Your task to perform on an android device: turn vacation reply on in the gmail app Image 0: 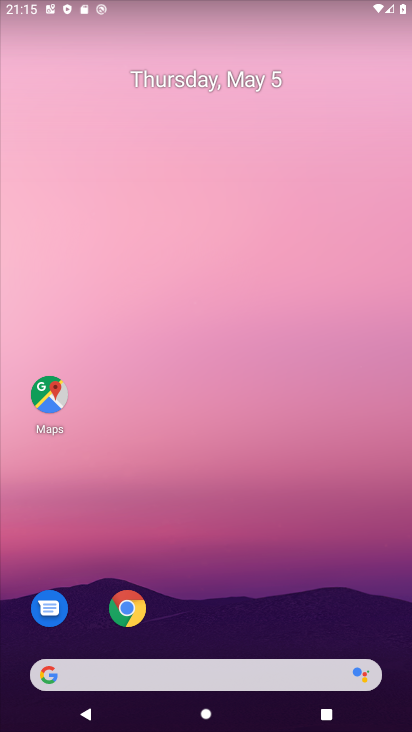
Step 0: drag from (283, 649) to (277, 22)
Your task to perform on an android device: turn vacation reply on in the gmail app Image 1: 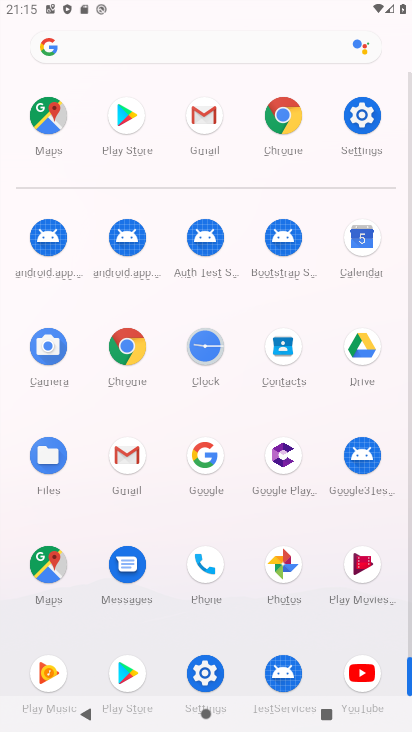
Step 1: click (125, 456)
Your task to perform on an android device: turn vacation reply on in the gmail app Image 2: 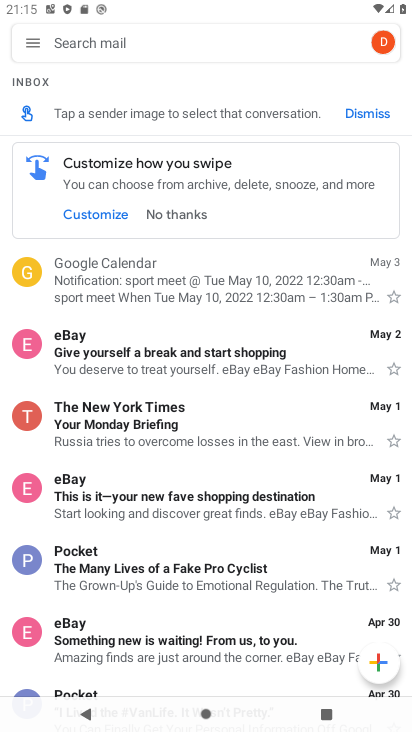
Step 2: click (29, 43)
Your task to perform on an android device: turn vacation reply on in the gmail app Image 3: 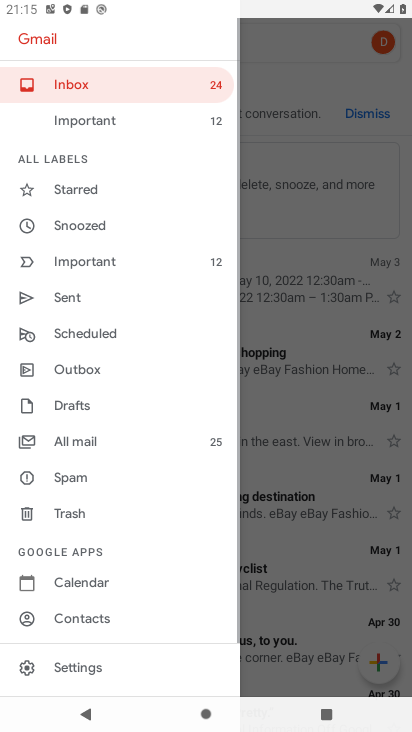
Step 3: drag from (152, 622) to (159, 69)
Your task to perform on an android device: turn vacation reply on in the gmail app Image 4: 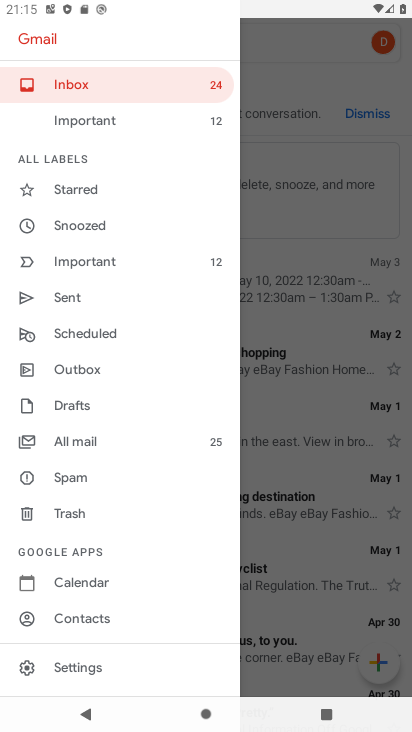
Step 4: drag from (79, 620) to (61, 97)
Your task to perform on an android device: turn vacation reply on in the gmail app Image 5: 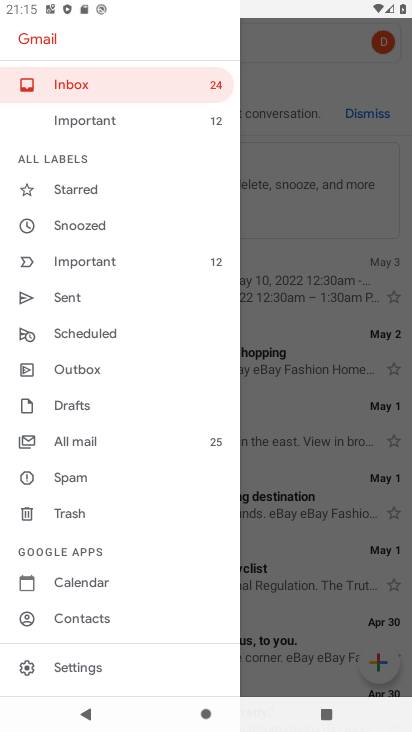
Step 5: click (81, 667)
Your task to perform on an android device: turn vacation reply on in the gmail app Image 6: 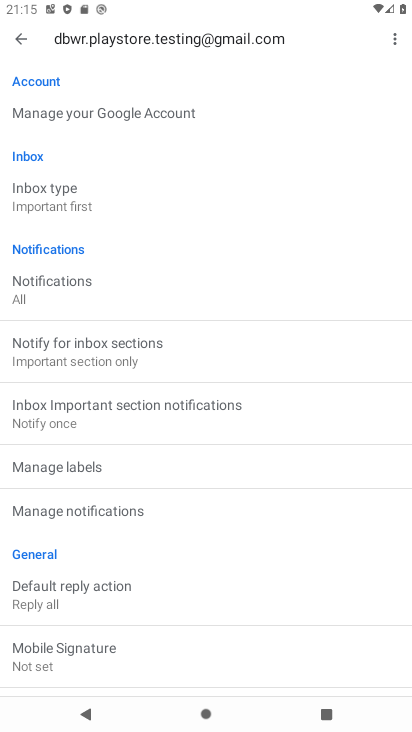
Step 6: drag from (180, 650) to (229, 153)
Your task to perform on an android device: turn vacation reply on in the gmail app Image 7: 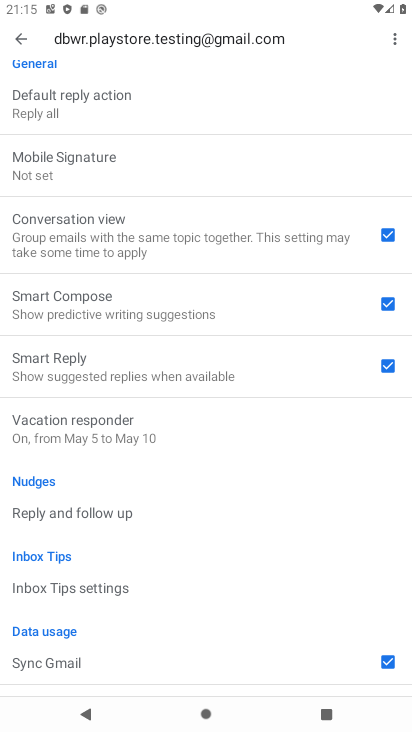
Step 7: click (147, 420)
Your task to perform on an android device: turn vacation reply on in the gmail app Image 8: 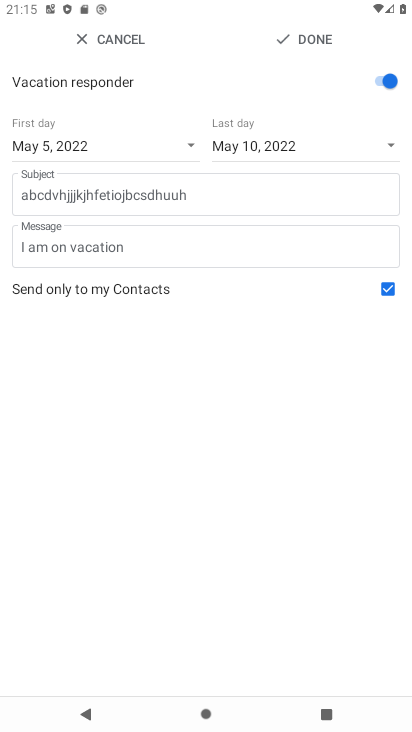
Step 8: click (326, 40)
Your task to perform on an android device: turn vacation reply on in the gmail app Image 9: 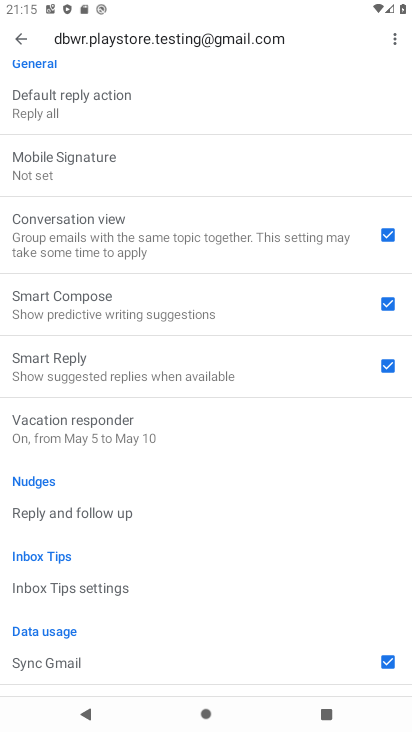
Step 9: task complete